Your task to perform on an android device: turn on airplane mode Image 0: 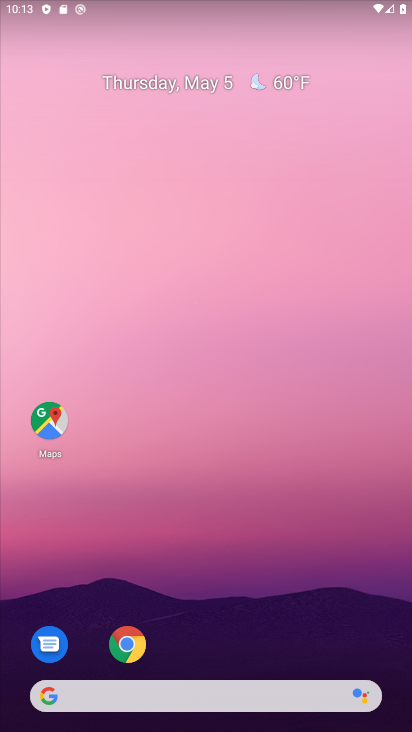
Step 0: drag from (376, 634) to (365, 215)
Your task to perform on an android device: turn on airplane mode Image 1: 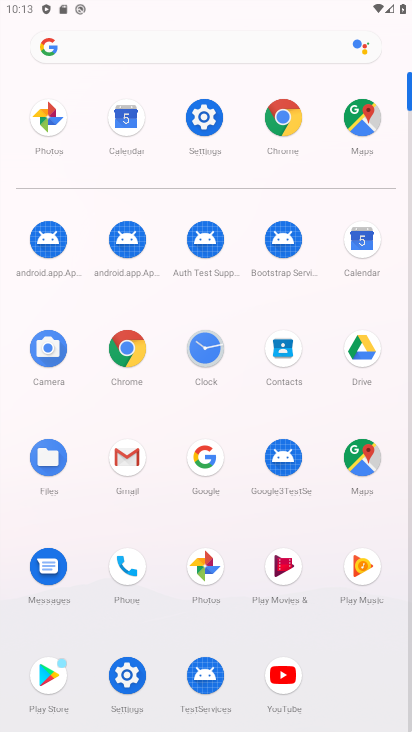
Step 1: click (196, 118)
Your task to perform on an android device: turn on airplane mode Image 2: 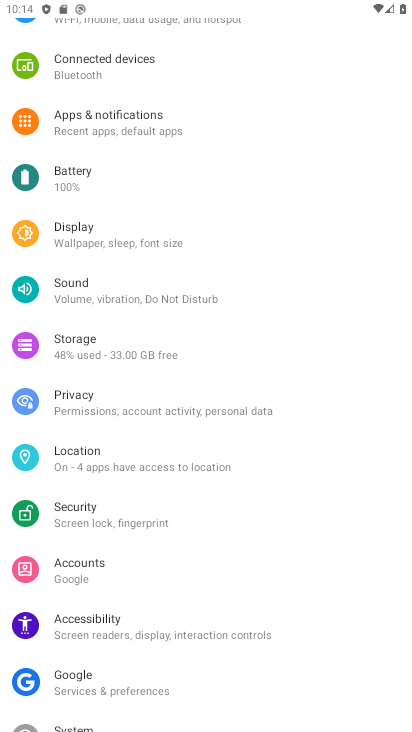
Step 2: drag from (156, 85) to (184, 514)
Your task to perform on an android device: turn on airplane mode Image 3: 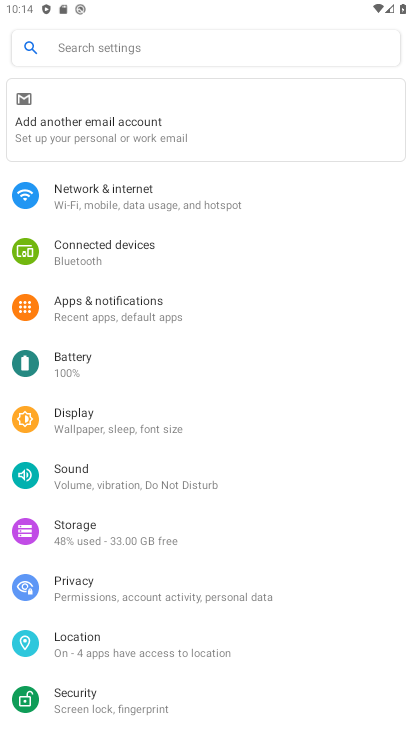
Step 3: click (182, 204)
Your task to perform on an android device: turn on airplane mode Image 4: 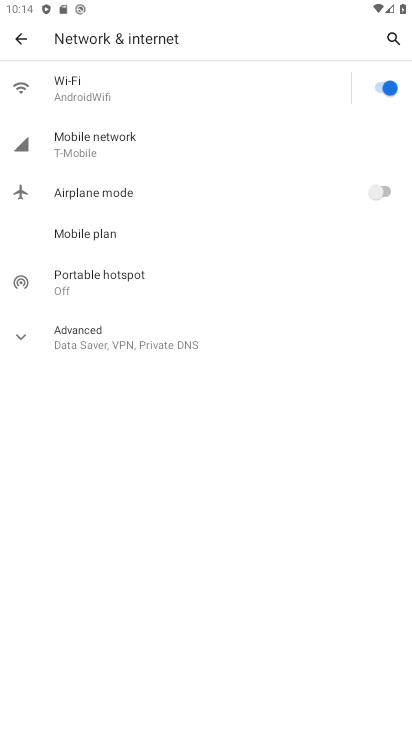
Step 4: click (386, 190)
Your task to perform on an android device: turn on airplane mode Image 5: 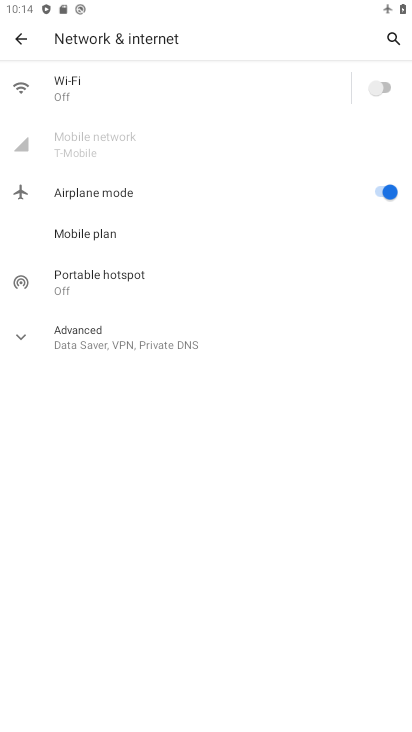
Step 5: task complete